Your task to perform on an android device: turn on translation in the chrome app Image 0: 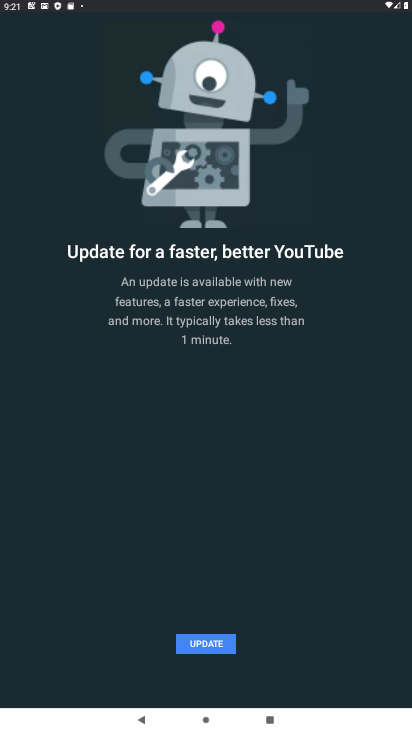
Step 0: drag from (241, 473) to (339, 132)
Your task to perform on an android device: turn on translation in the chrome app Image 1: 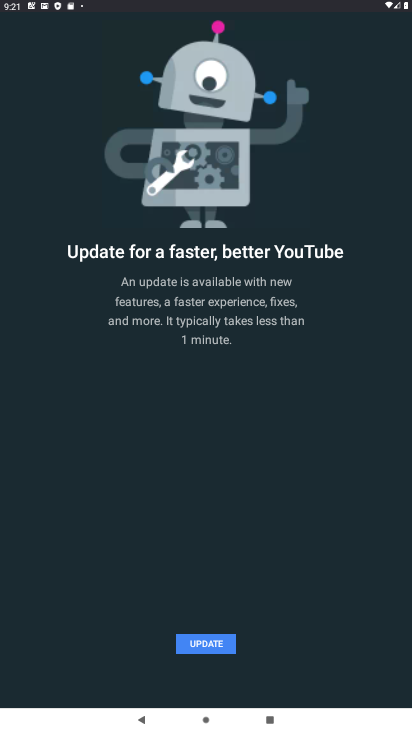
Step 1: press home button
Your task to perform on an android device: turn on translation in the chrome app Image 2: 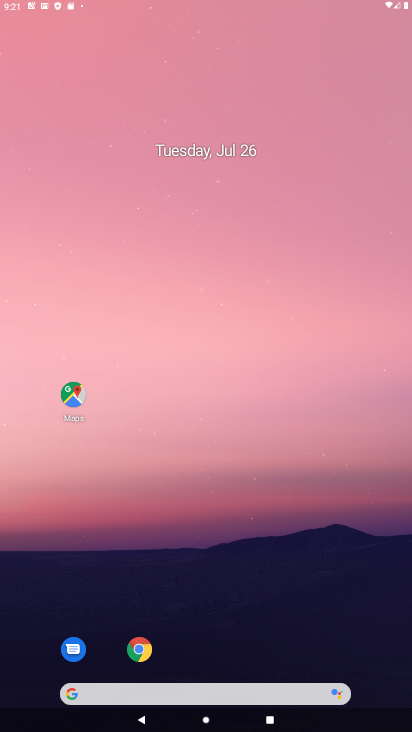
Step 2: drag from (204, 553) to (186, 29)
Your task to perform on an android device: turn on translation in the chrome app Image 3: 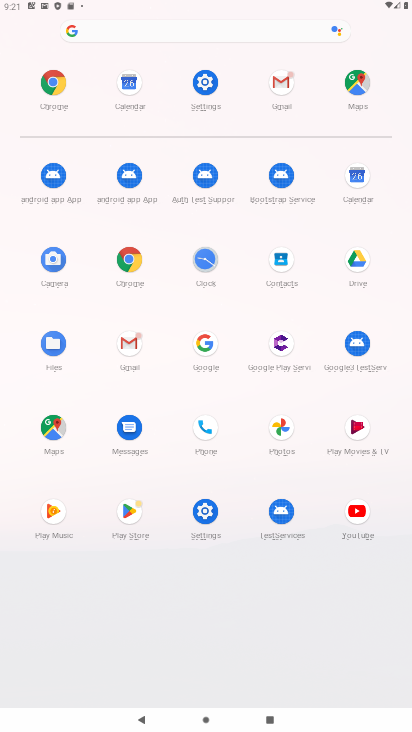
Step 3: click (128, 254)
Your task to perform on an android device: turn on translation in the chrome app Image 4: 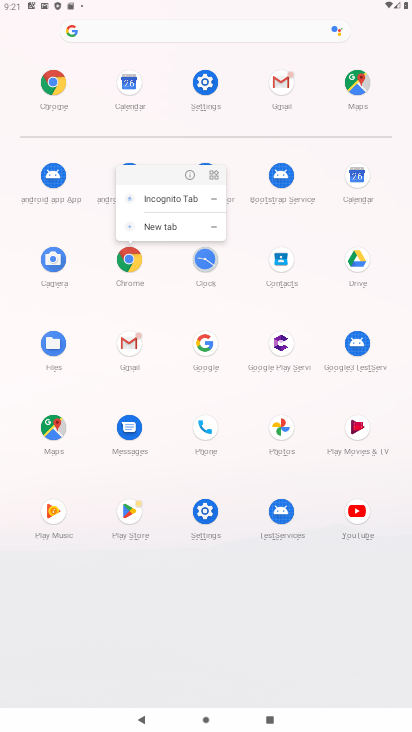
Step 4: click (181, 180)
Your task to perform on an android device: turn on translation in the chrome app Image 5: 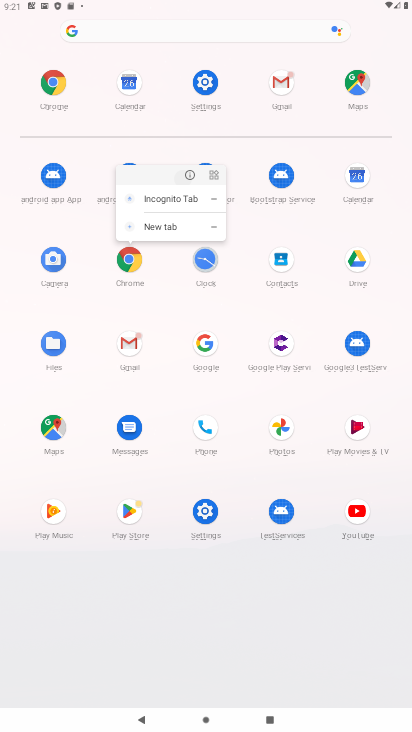
Step 5: click (181, 180)
Your task to perform on an android device: turn on translation in the chrome app Image 6: 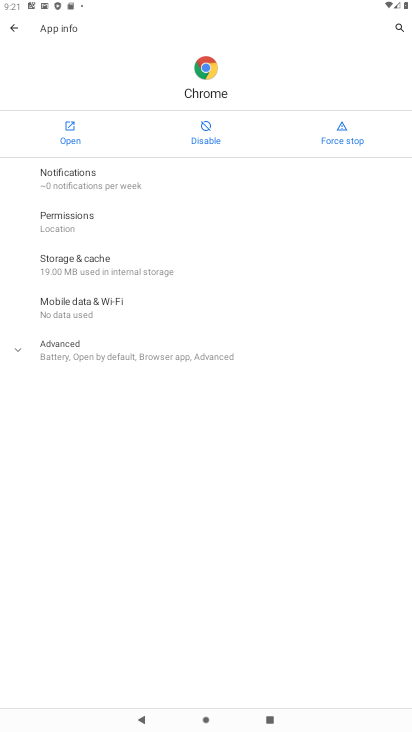
Step 6: click (73, 130)
Your task to perform on an android device: turn on translation in the chrome app Image 7: 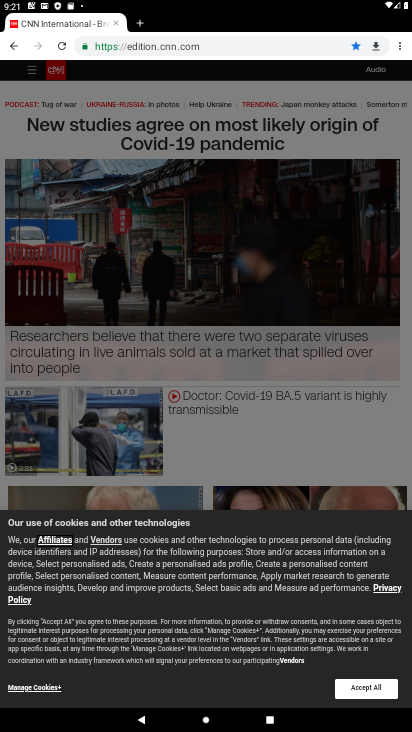
Step 7: drag from (402, 48) to (337, 286)
Your task to perform on an android device: turn on translation in the chrome app Image 8: 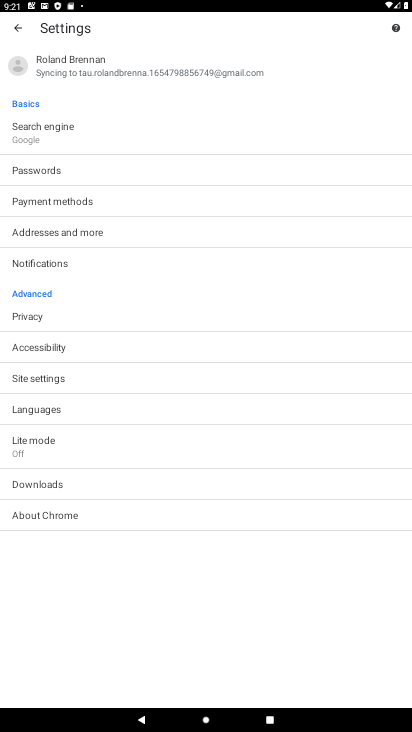
Step 8: click (53, 399)
Your task to perform on an android device: turn on translation in the chrome app Image 9: 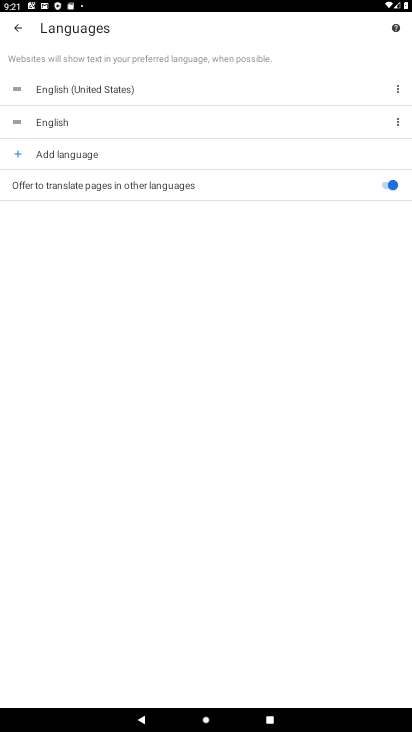
Step 9: task complete